Your task to perform on an android device: Go to Yahoo.com Image 0: 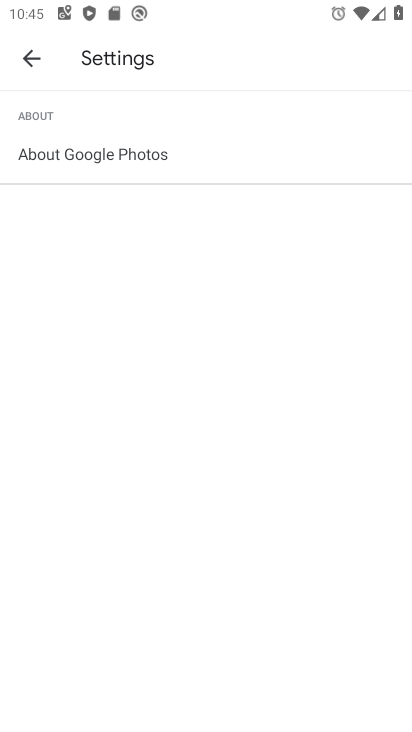
Step 0: press home button
Your task to perform on an android device: Go to Yahoo.com Image 1: 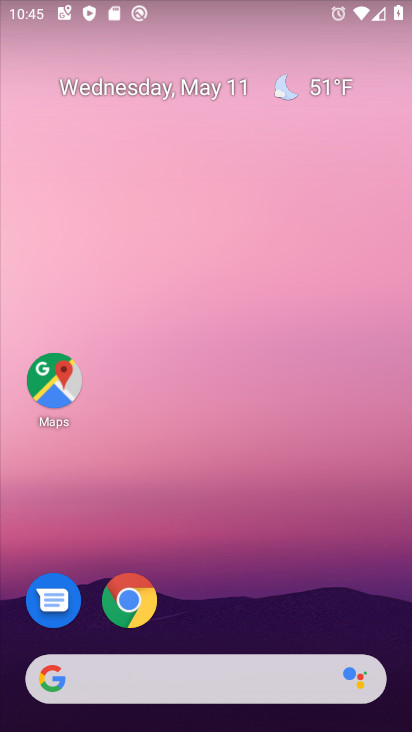
Step 1: click (132, 597)
Your task to perform on an android device: Go to Yahoo.com Image 2: 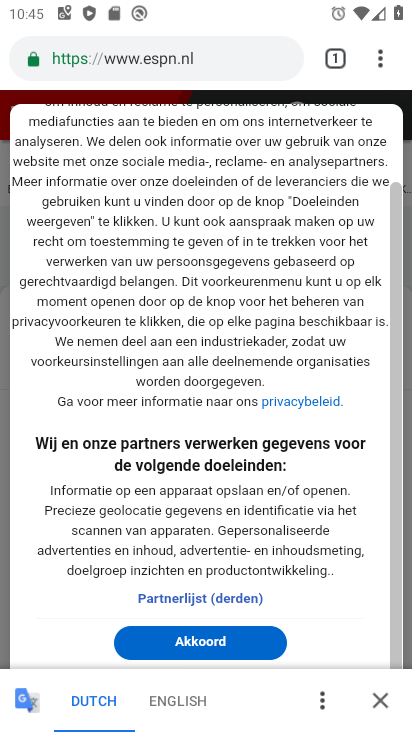
Step 2: click (343, 52)
Your task to perform on an android device: Go to Yahoo.com Image 3: 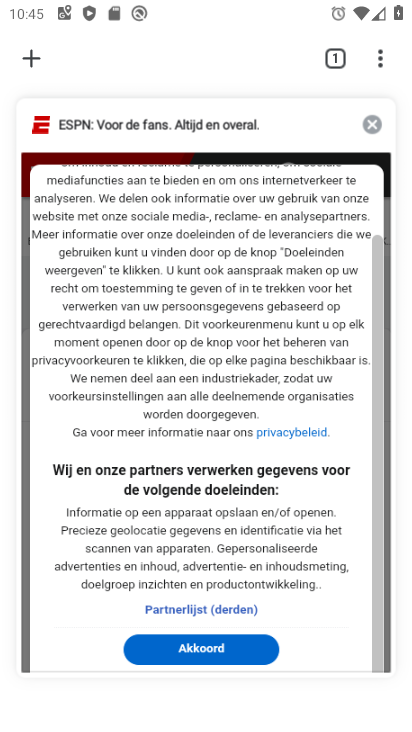
Step 3: click (22, 47)
Your task to perform on an android device: Go to Yahoo.com Image 4: 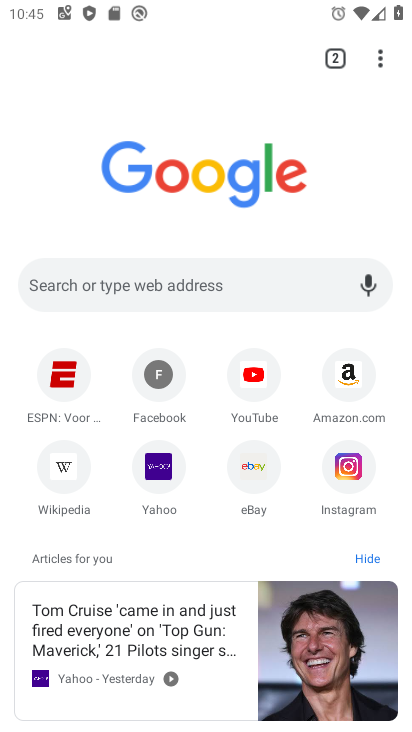
Step 4: click (167, 462)
Your task to perform on an android device: Go to Yahoo.com Image 5: 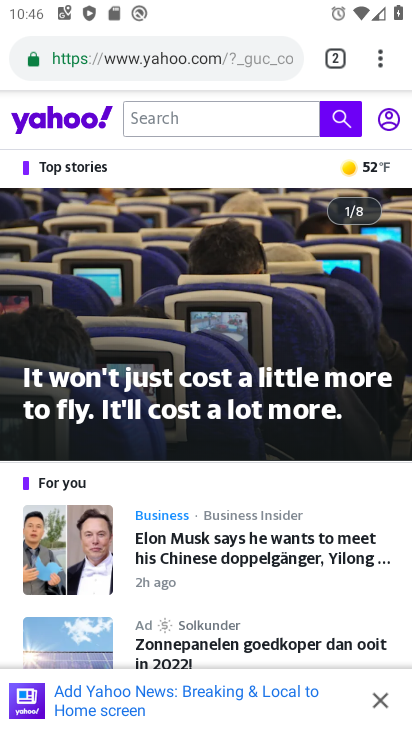
Step 5: task complete